Your task to perform on an android device: Open eBay Image 0: 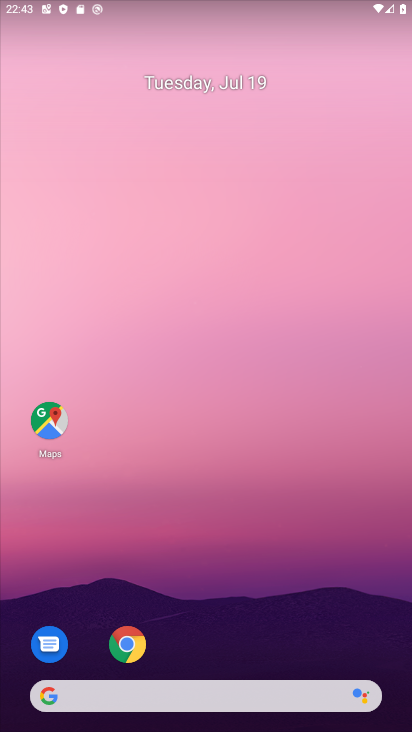
Step 0: click (215, 279)
Your task to perform on an android device: Open eBay Image 1: 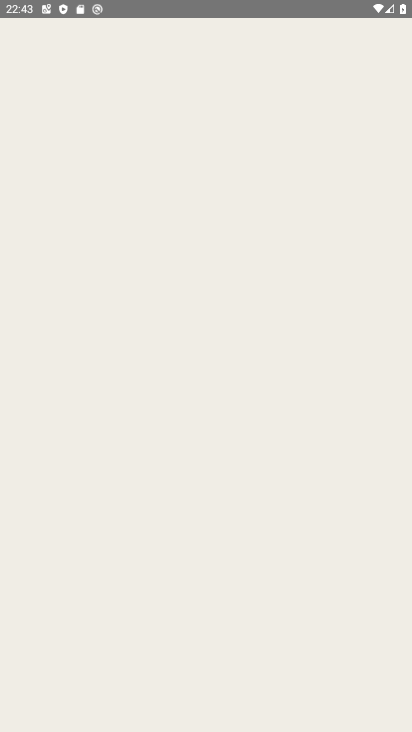
Step 1: press home button
Your task to perform on an android device: Open eBay Image 2: 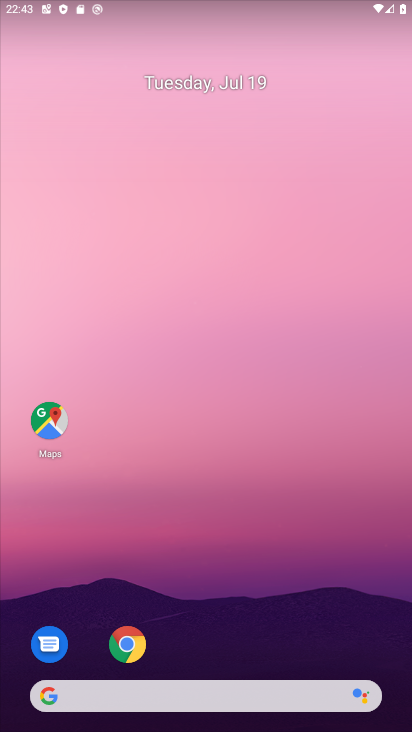
Step 2: drag from (210, 728) to (209, 189)
Your task to perform on an android device: Open eBay Image 3: 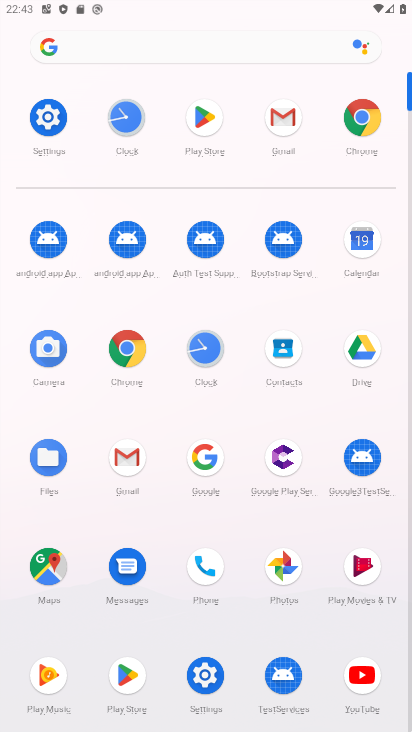
Step 3: click (127, 344)
Your task to perform on an android device: Open eBay Image 4: 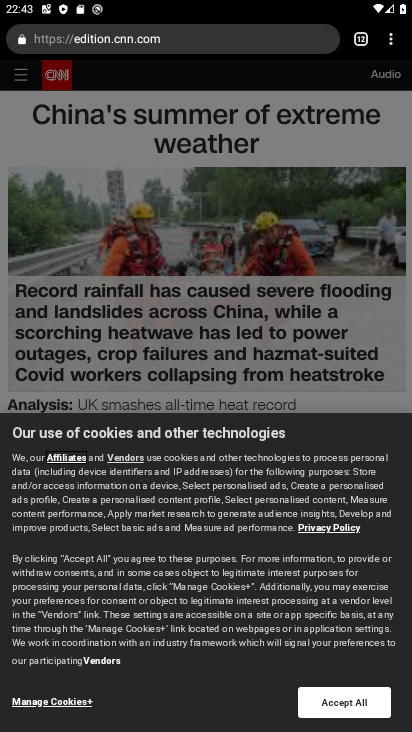
Step 4: click (393, 45)
Your task to perform on an android device: Open eBay Image 5: 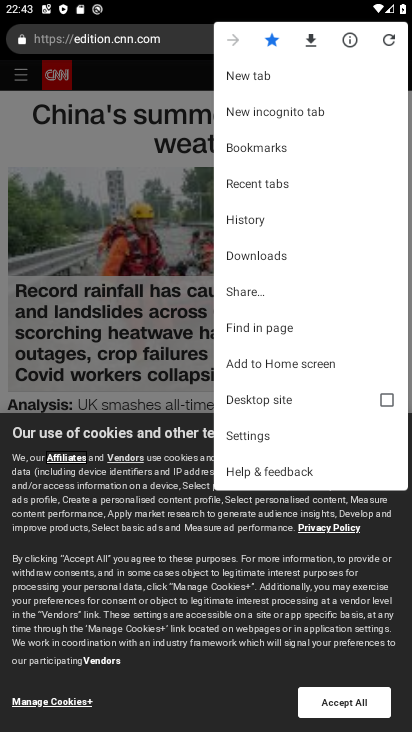
Step 5: click (253, 75)
Your task to perform on an android device: Open eBay Image 6: 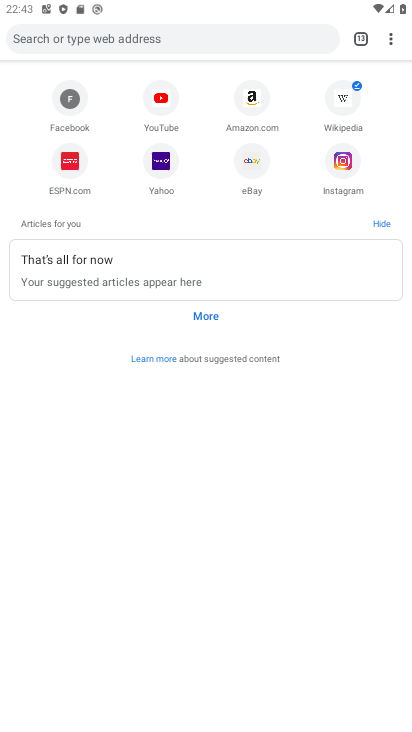
Step 6: click (248, 158)
Your task to perform on an android device: Open eBay Image 7: 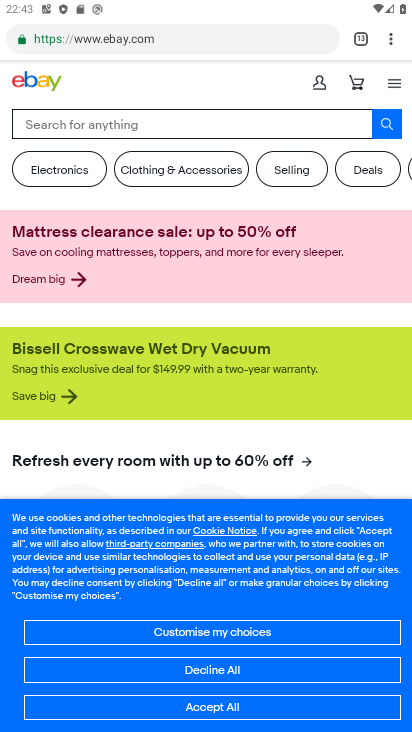
Step 7: task complete